Your task to perform on an android device: turn on data saver in the chrome app Image 0: 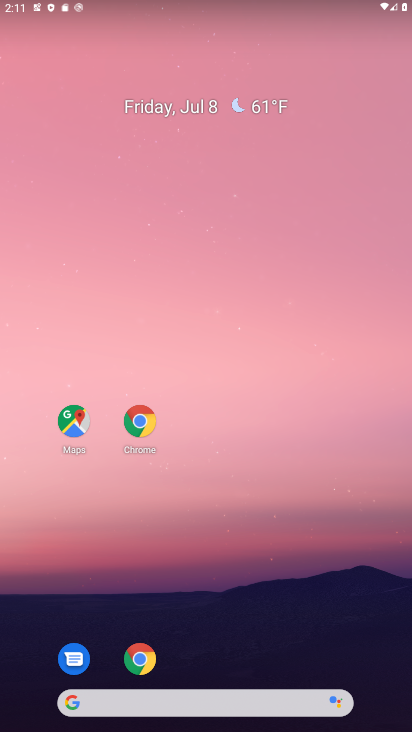
Step 0: drag from (220, 670) to (196, 103)
Your task to perform on an android device: turn on data saver in the chrome app Image 1: 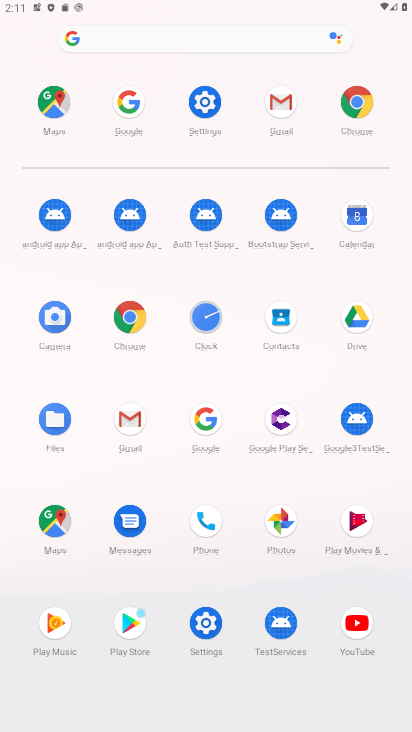
Step 1: click (123, 315)
Your task to perform on an android device: turn on data saver in the chrome app Image 2: 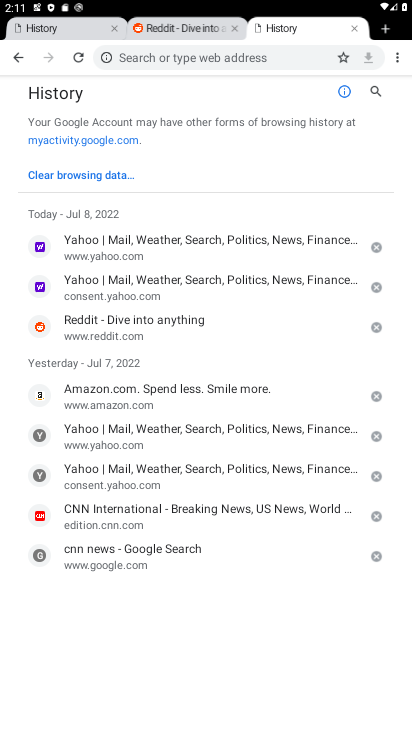
Step 2: drag from (402, 58) to (282, 302)
Your task to perform on an android device: turn on data saver in the chrome app Image 3: 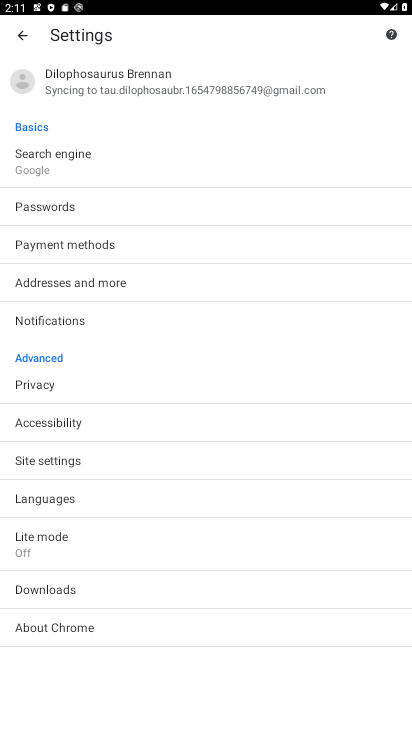
Step 3: click (63, 554)
Your task to perform on an android device: turn on data saver in the chrome app Image 4: 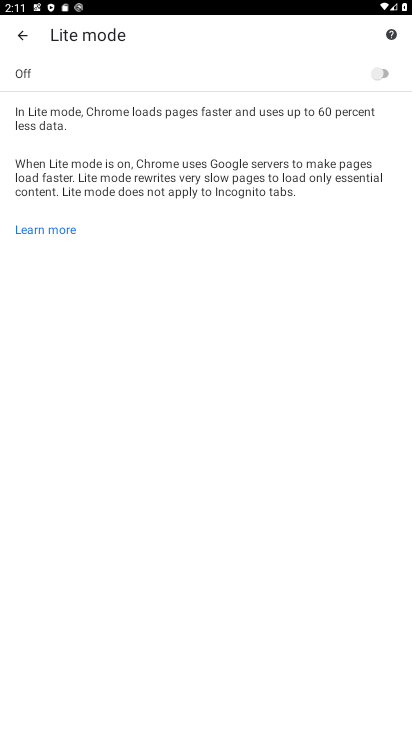
Step 4: click (383, 77)
Your task to perform on an android device: turn on data saver in the chrome app Image 5: 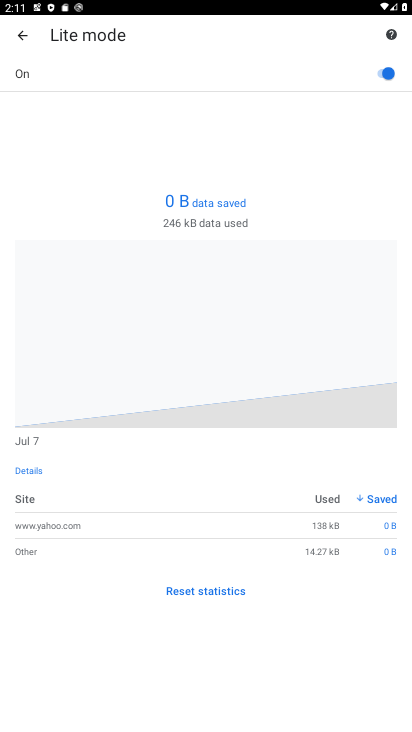
Step 5: task complete